Your task to perform on an android device: Open calendar and show me the second week of next month Image 0: 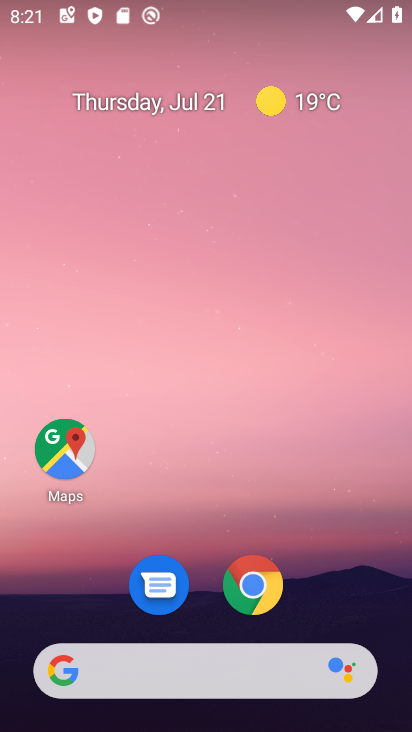
Step 0: drag from (314, 614) to (268, 79)
Your task to perform on an android device: Open calendar and show me the second week of next month Image 1: 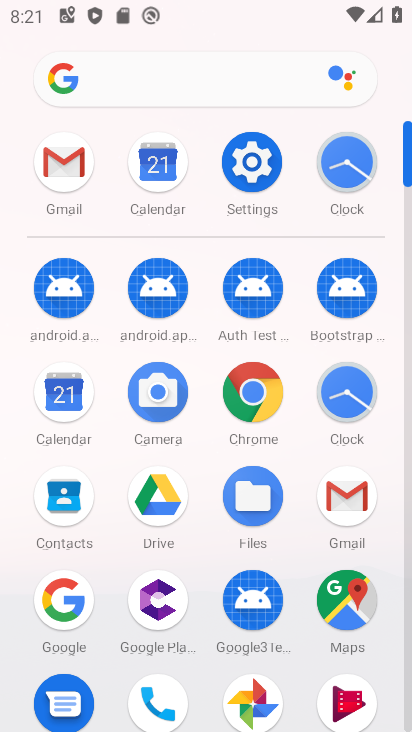
Step 1: click (165, 165)
Your task to perform on an android device: Open calendar and show me the second week of next month Image 2: 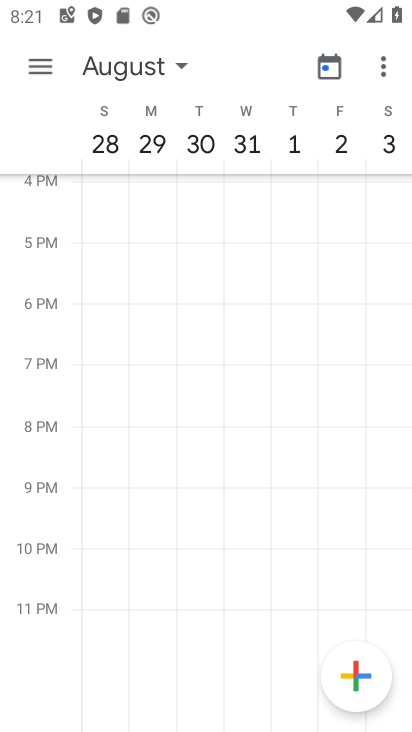
Step 2: task complete